Your task to perform on an android device: change your default location settings in chrome Image 0: 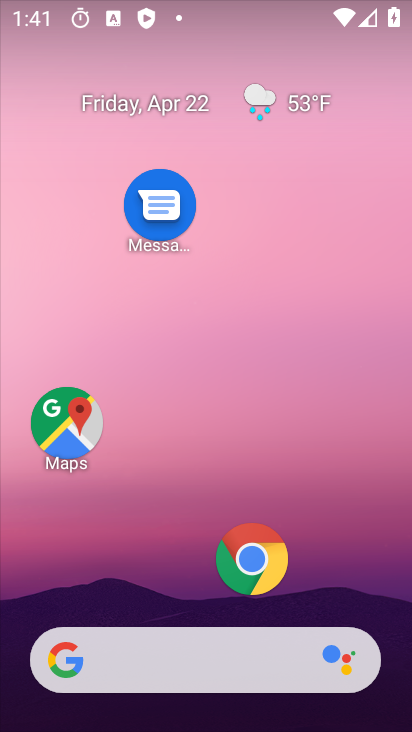
Step 0: click (246, 568)
Your task to perform on an android device: change your default location settings in chrome Image 1: 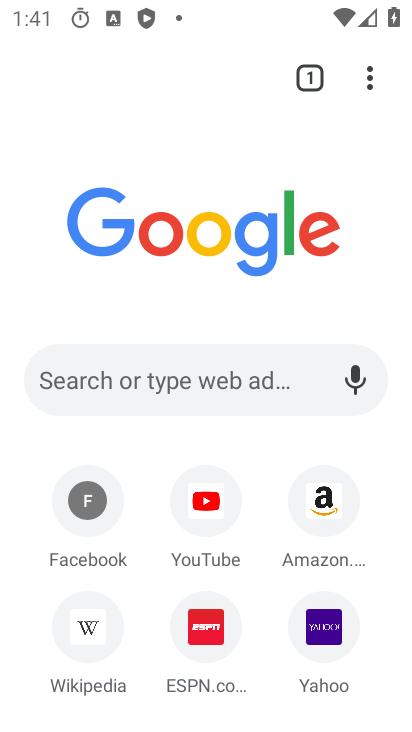
Step 1: click (364, 77)
Your task to perform on an android device: change your default location settings in chrome Image 2: 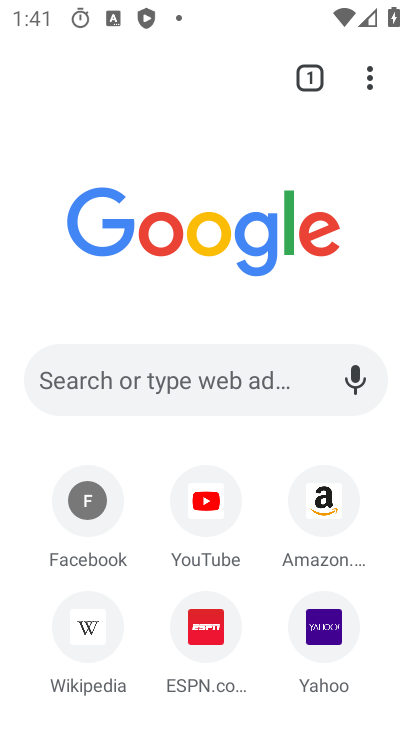
Step 2: click (372, 80)
Your task to perform on an android device: change your default location settings in chrome Image 3: 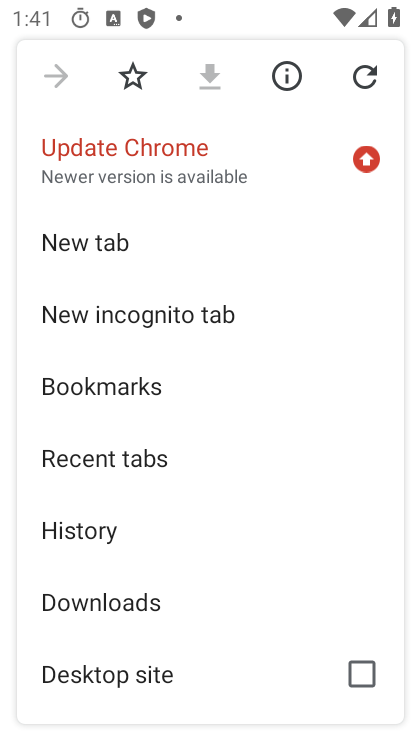
Step 3: drag from (108, 685) to (188, 161)
Your task to perform on an android device: change your default location settings in chrome Image 4: 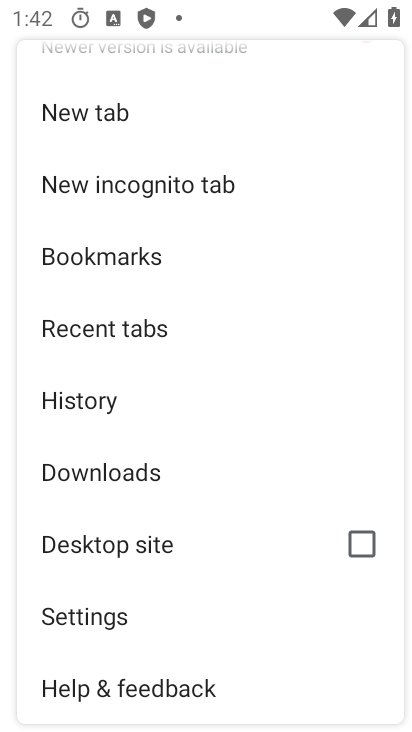
Step 4: click (76, 623)
Your task to perform on an android device: change your default location settings in chrome Image 5: 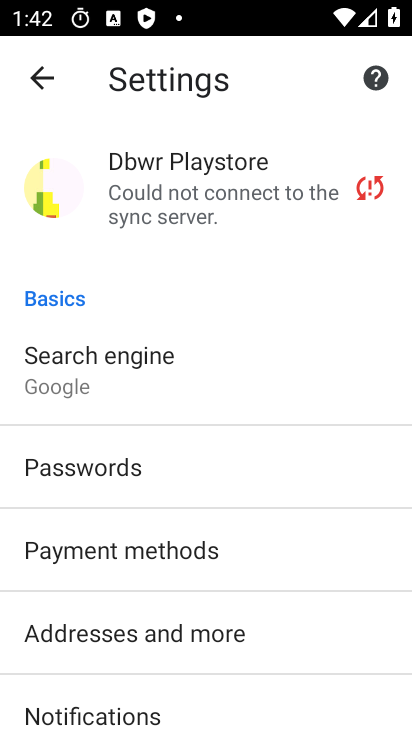
Step 5: drag from (107, 693) to (160, 326)
Your task to perform on an android device: change your default location settings in chrome Image 6: 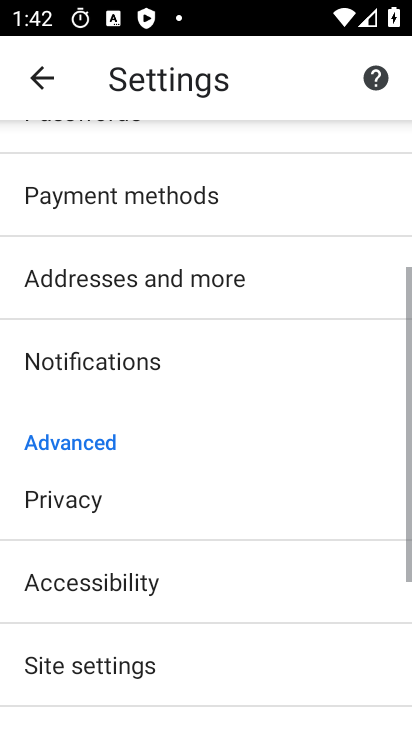
Step 6: click (108, 659)
Your task to perform on an android device: change your default location settings in chrome Image 7: 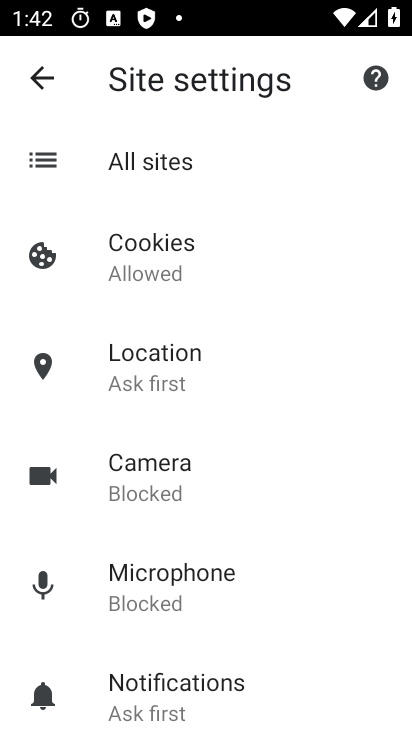
Step 7: click (156, 344)
Your task to perform on an android device: change your default location settings in chrome Image 8: 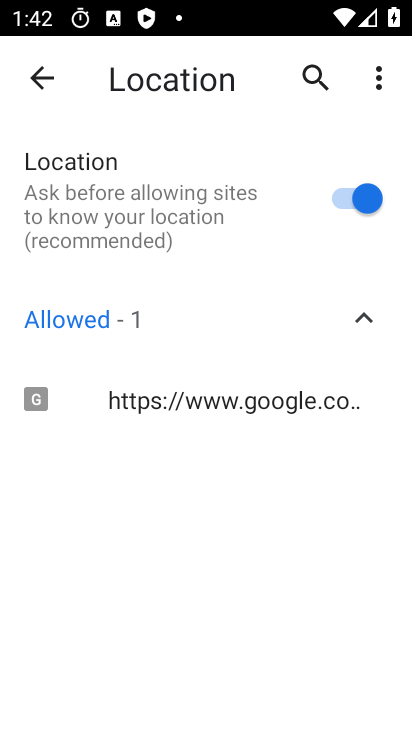
Step 8: click (341, 198)
Your task to perform on an android device: change your default location settings in chrome Image 9: 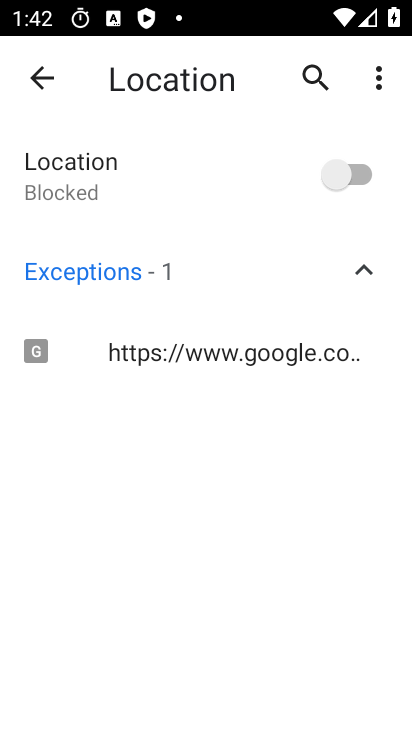
Step 9: task complete